Your task to perform on an android device: What is the news today? Image 0: 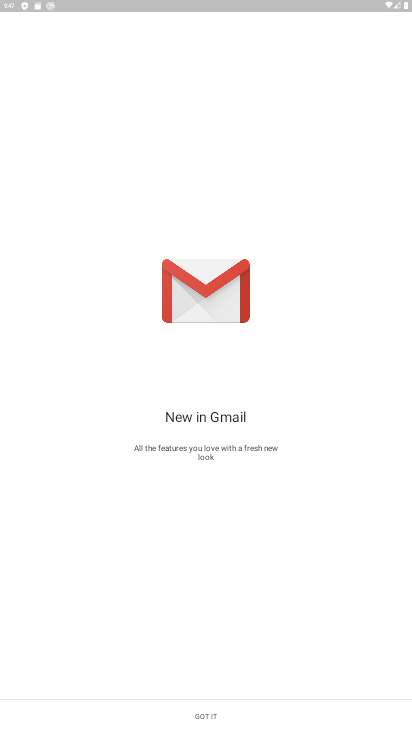
Step 0: press home button
Your task to perform on an android device: What is the news today? Image 1: 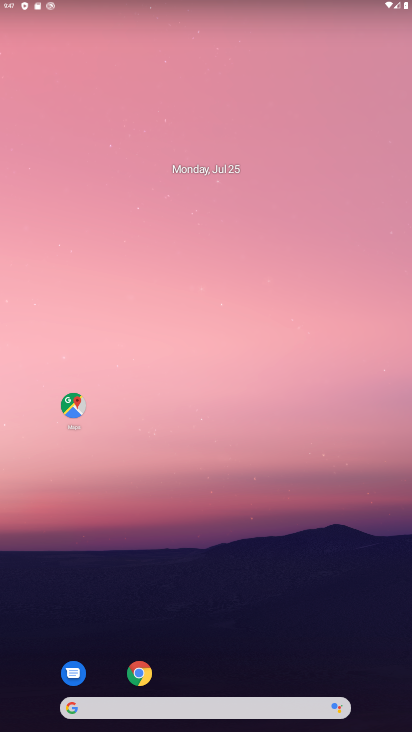
Step 1: drag from (244, 647) to (269, 93)
Your task to perform on an android device: What is the news today? Image 2: 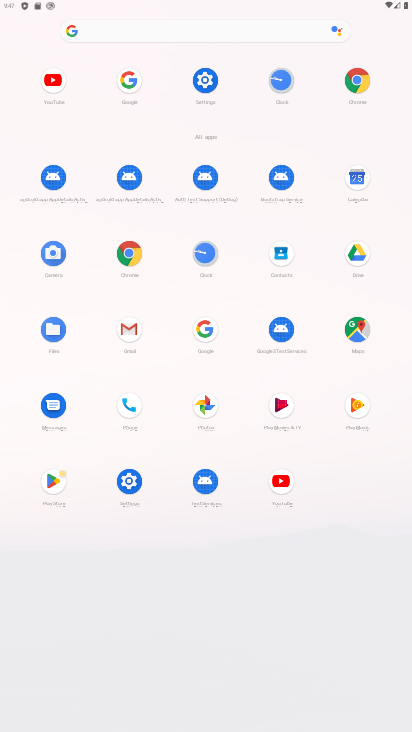
Step 2: click (129, 245)
Your task to perform on an android device: What is the news today? Image 3: 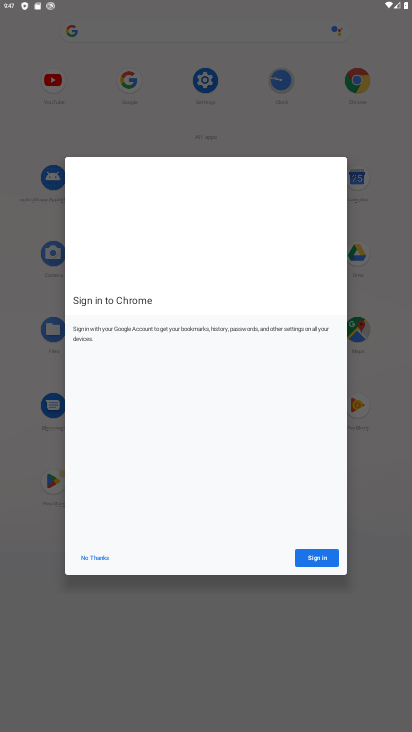
Step 3: task complete